Your task to perform on an android device: Open privacy settings Image 0: 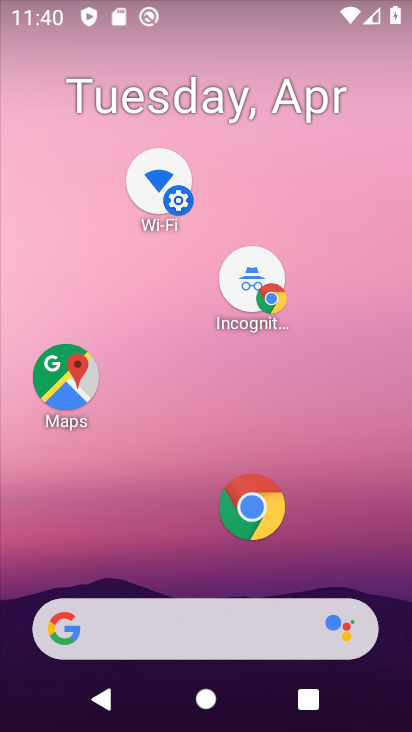
Step 0: drag from (119, 462) to (276, 159)
Your task to perform on an android device: Open privacy settings Image 1: 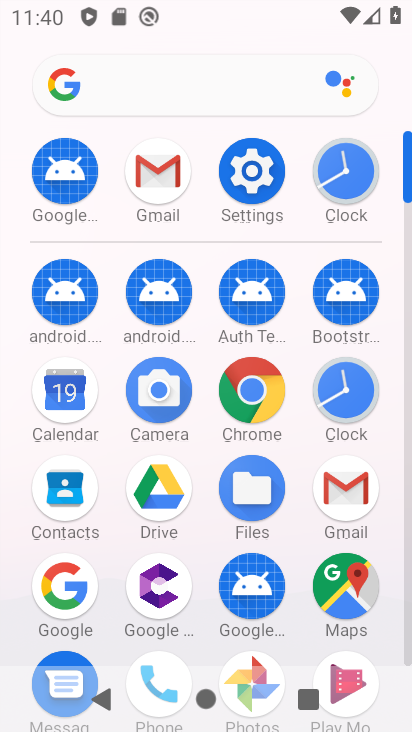
Step 1: click (235, 144)
Your task to perform on an android device: Open privacy settings Image 2: 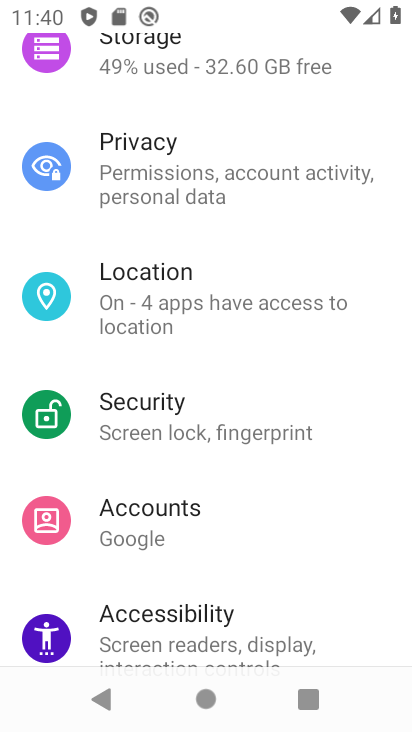
Step 2: click (222, 171)
Your task to perform on an android device: Open privacy settings Image 3: 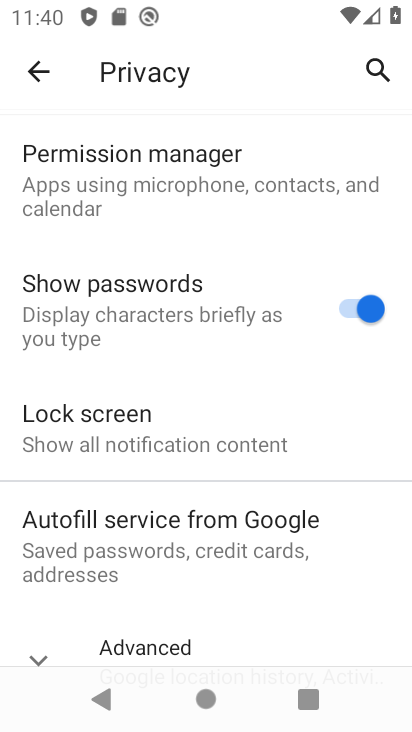
Step 3: task complete